Your task to perform on an android device: Search for Mexican restaurants on Maps Image 0: 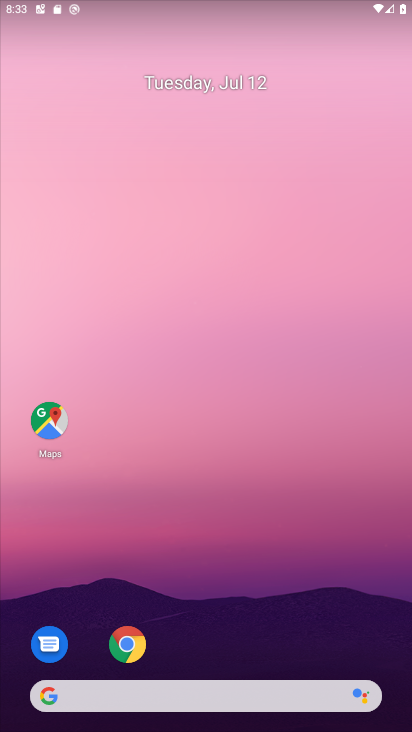
Step 0: drag from (334, 630) to (324, 167)
Your task to perform on an android device: Search for Mexican restaurants on Maps Image 1: 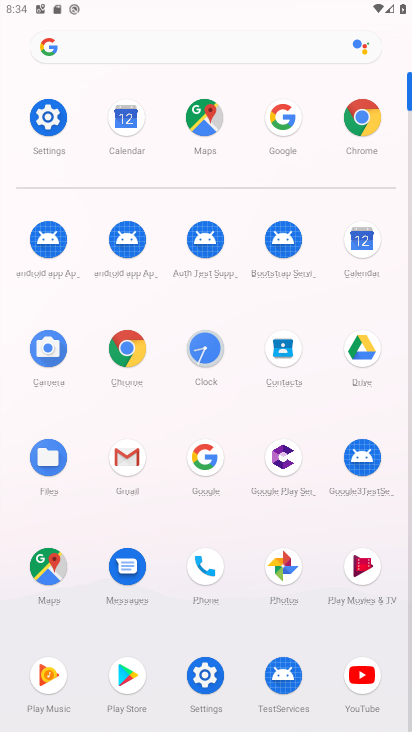
Step 1: click (61, 573)
Your task to perform on an android device: Search for Mexican restaurants on Maps Image 2: 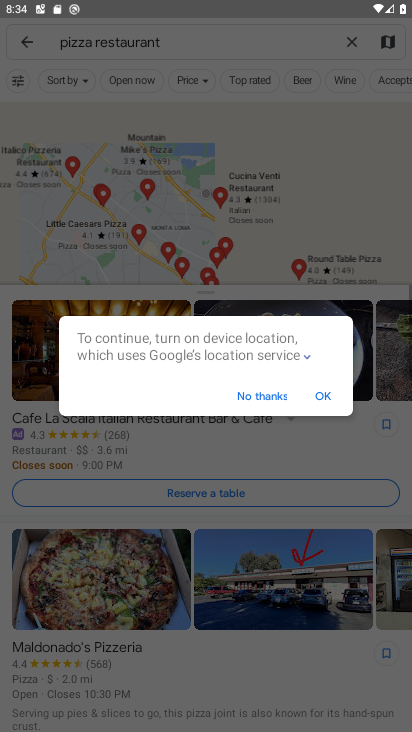
Step 2: click (272, 390)
Your task to perform on an android device: Search for Mexican restaurants on Maps Image 3: 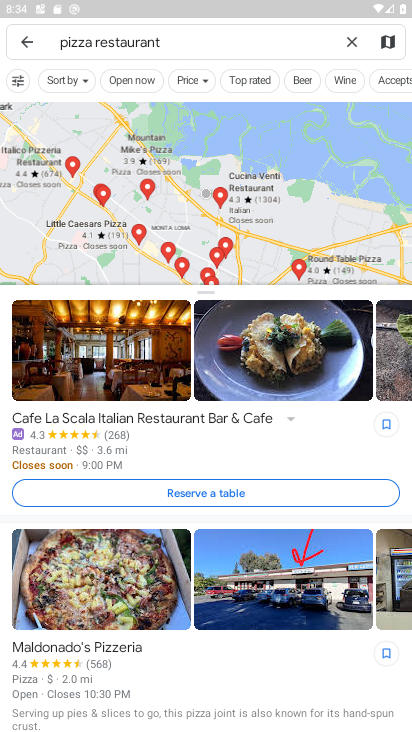
Step 3: click (353, 44)
Your task to perform on an android device: Search for Mexican restaurants on Maps Image 4: 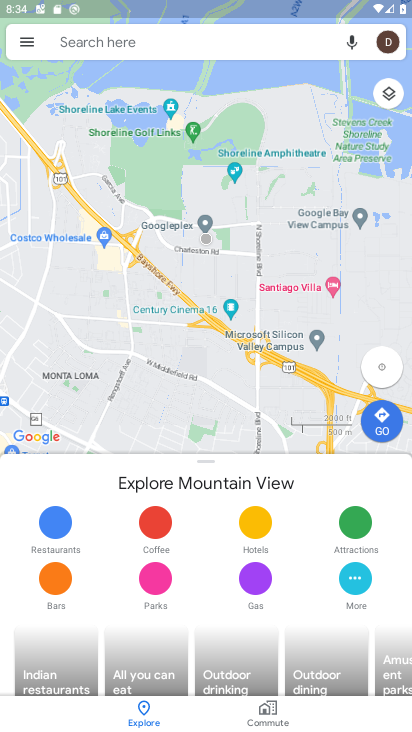
Step 4: click (268, 32)
Your task to perform on an android device: Search for Mexican restaurants on Maps Image 5: 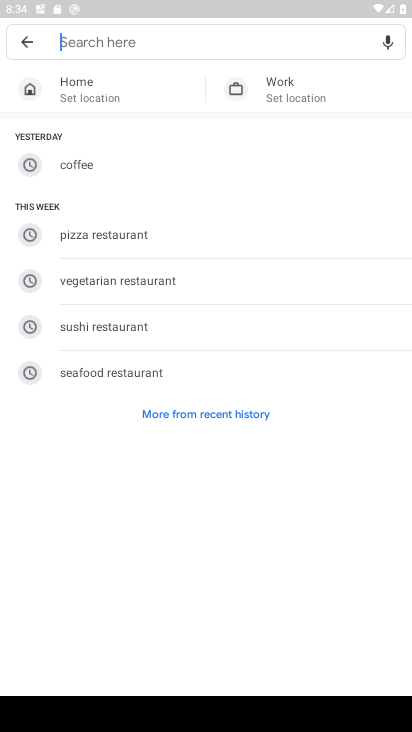
Step 5: type "Mexican restaurants"
Your task to perform on an android device: Search for Mexican restaurants on Maps Image 6: 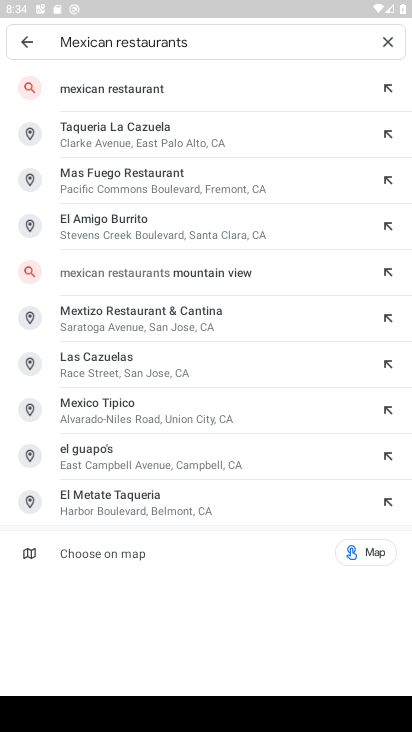
Step 6: click (186, 82)
Your task to perform on an android device: Search for Mexican restaurants on Maps Image 7: 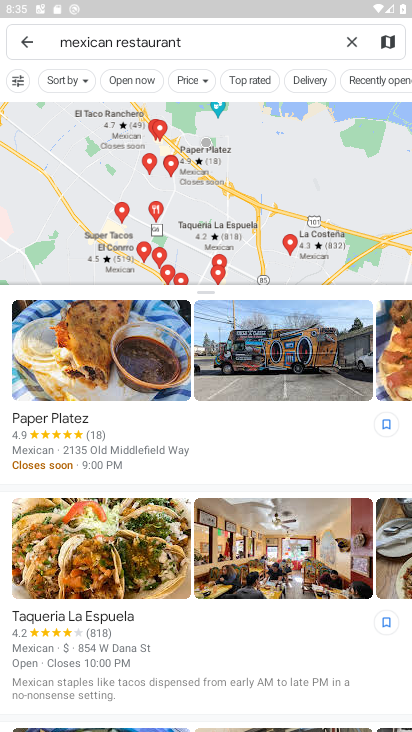
Step 7: task complete